Your task to perform on an android device: Is it going to rain tomorrow? Image 0: 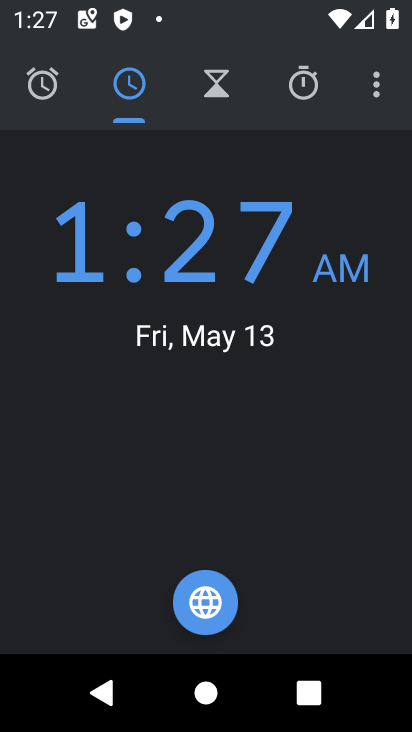
Step 0: press home button
Your task to perform on an android device: Is it going to rain tomorrow? Image 1: 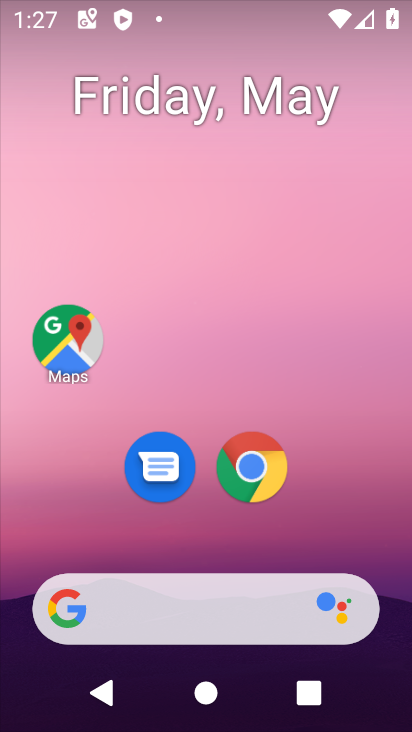
Step 1: click (164, 612)
Your task to perform on an android device: Is it going to rain tomorrow? Image 2: 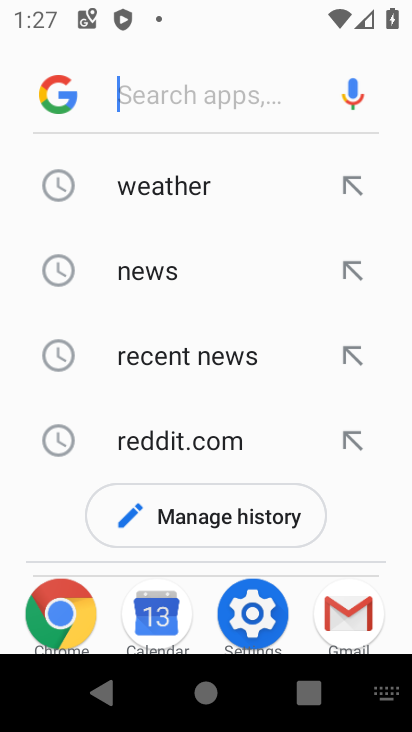
Step 2: type "Is it going to rain tomorrow?"
Your task to perform on an android device: Is it going to rain tomorrow? Image 3: 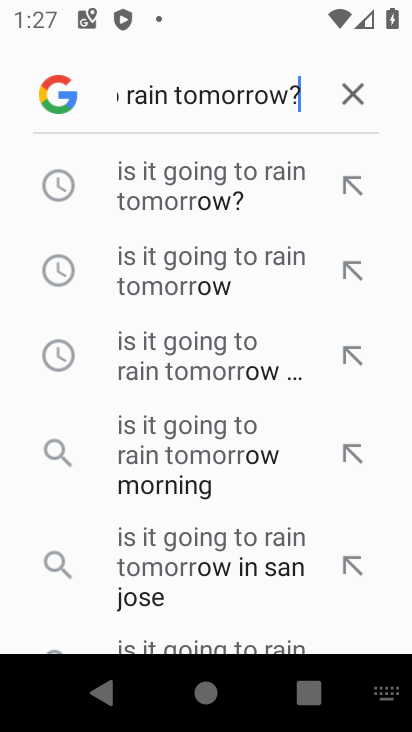
Step 3: type ""
Your task to perform on an android device: Is it going to rain tomorrow? Image 4: 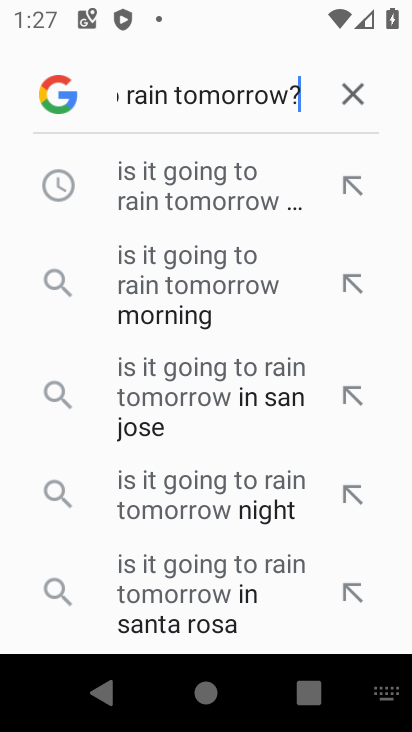
Step 4: click (180, 187)
Your task to perform on an android device: Is it going to rain tomorrow? Image 5: 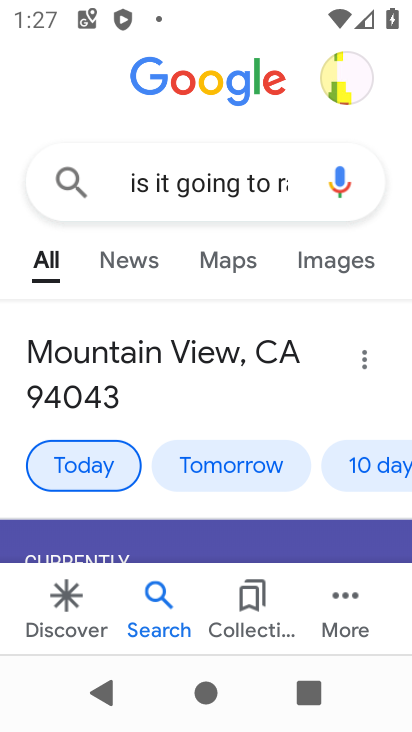
Step 5: click (199, 469)
Your task to perform on an android device: Is it going to rain tomorrow? Image 6: 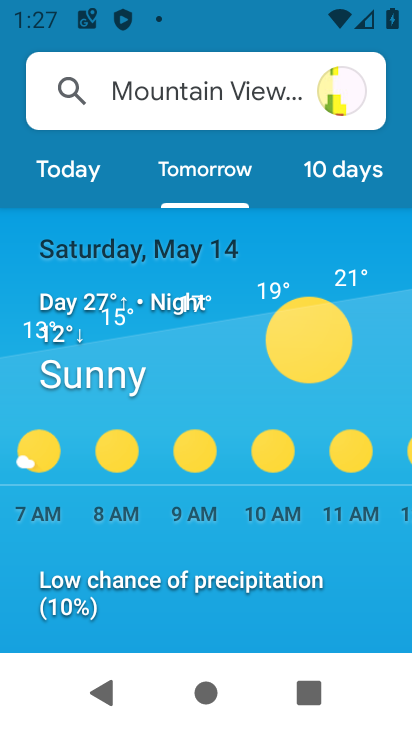
Step 6: task complete